Your task to perform on an android device: see sites visited before in the chrome app Image 0: 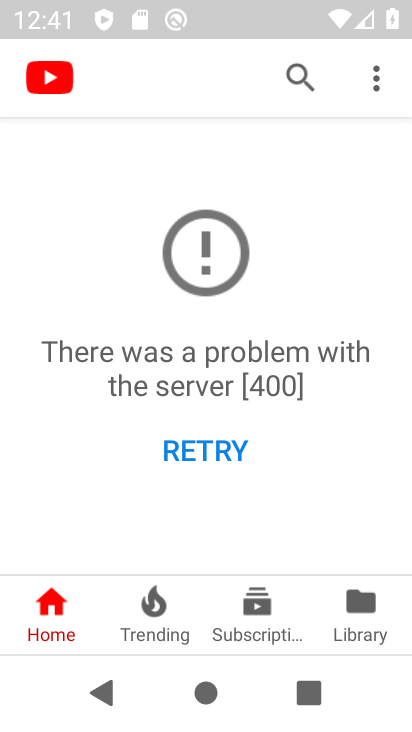
Step 0: task complete